Your task to perform on an android device: Check the news Image 0: 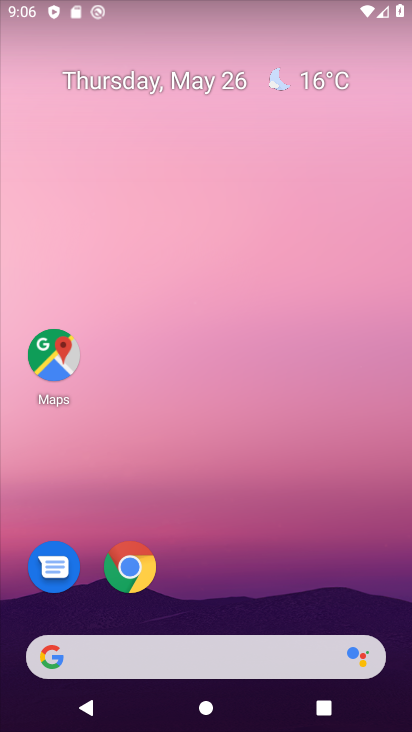
Step 0: drag from (3, 269) to (298, 273)
Your task to perform on an android device: Check the news Image 1: 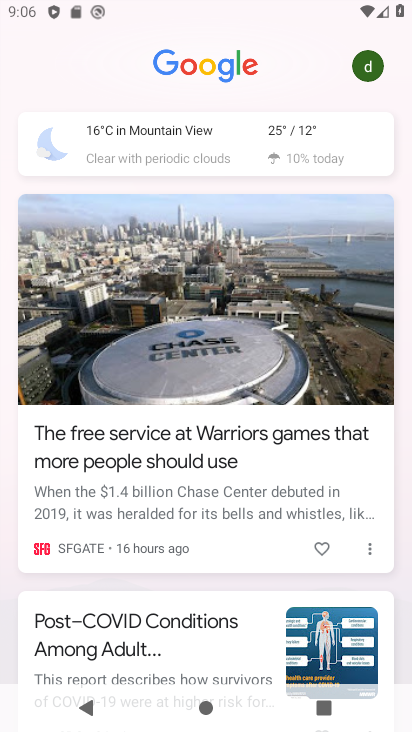
Step 1: task complete